Your task to perform on an android device: open sync settings in chrome Image 0: 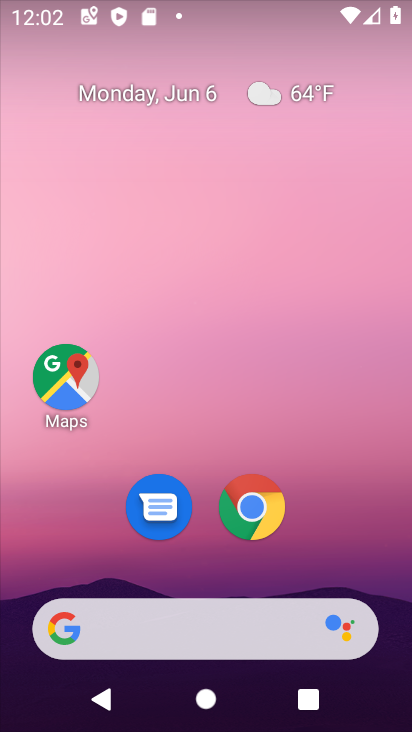
Step 0: click (252, 511)
Your task to perform on an android device: open sync settings in chrome Image 1: 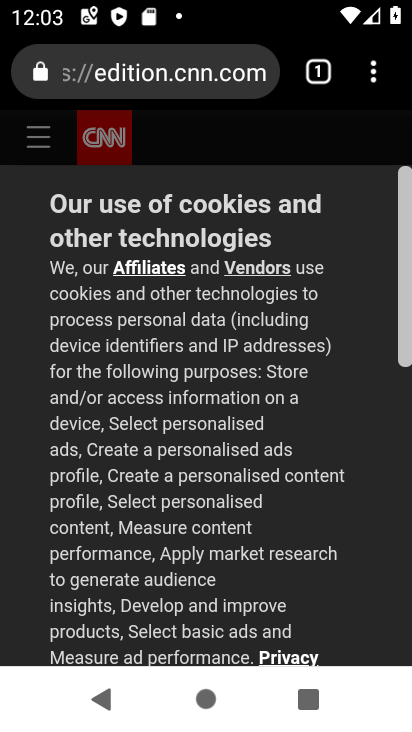
Step 1: drag from (376, 73) to (192, 494)
Your task to perform on an android device: open sync settings in chrome Image 2: 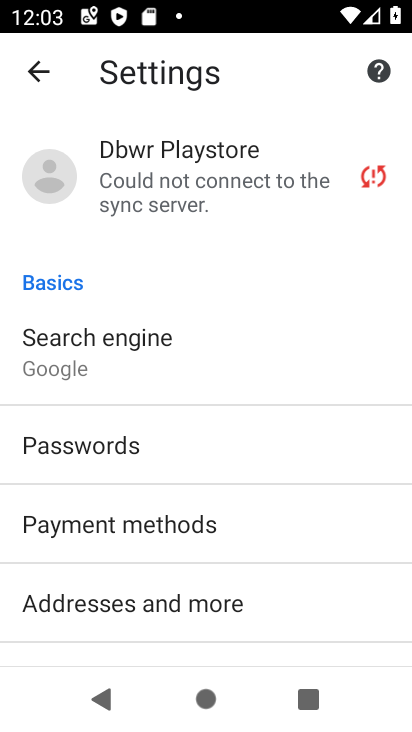
Step 2: click (228, 180)
Your task to perform on an android device: open sync settings in chrome Image 3: 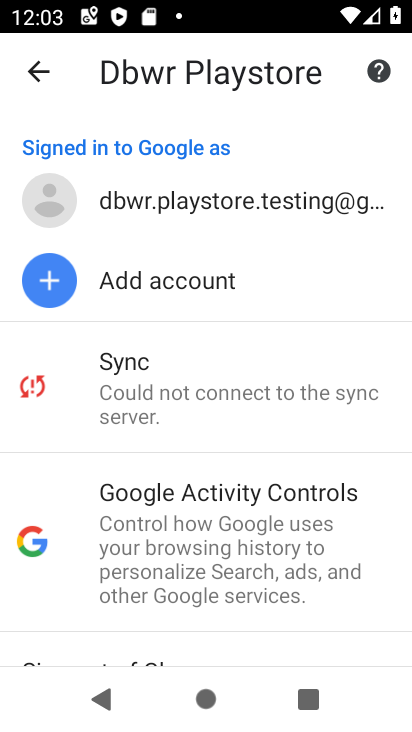
Step 3: click (228, 358)
Your task to perform on an android device: open sync settings in chrome Image 4: 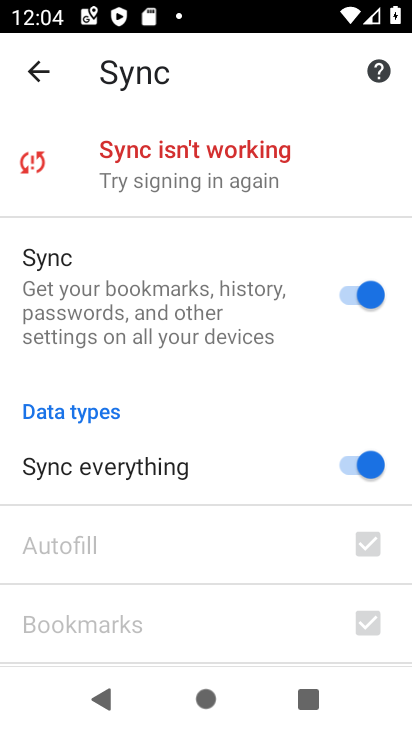
Step 4: task complete